Your task to perform on an android device: turn off notifications in google photos Image 0: 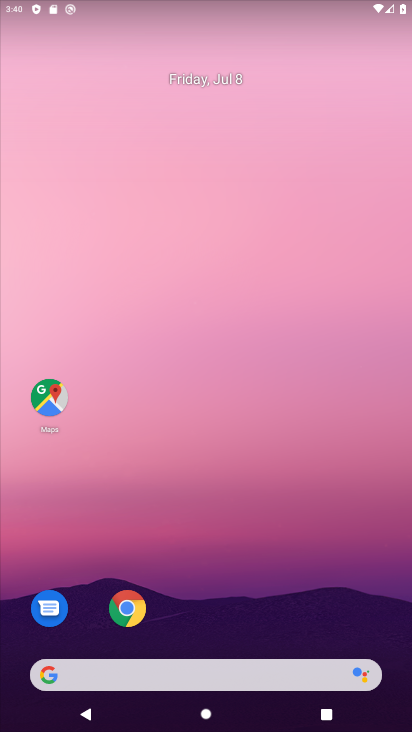
Step 0: drag from (270, 597) to (352, 34)
Your task to perform on an android device: turn off notifications in google photos Image 1: 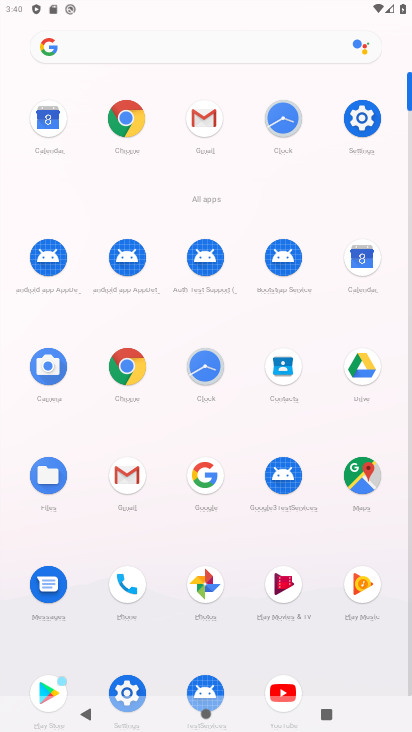
Step 1: click (202, 586)
Your task to perform on an android device: turn off notifications in google photos Image 2: 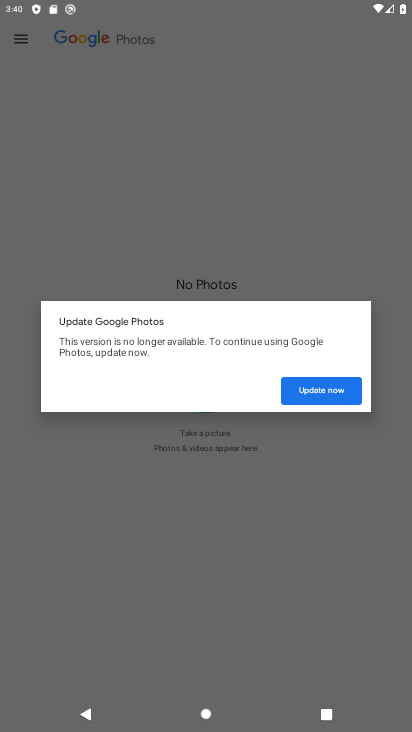
Step 2: click (325, 388)
Your task to perform on an android device: turn off notifications in google photos Image 3: 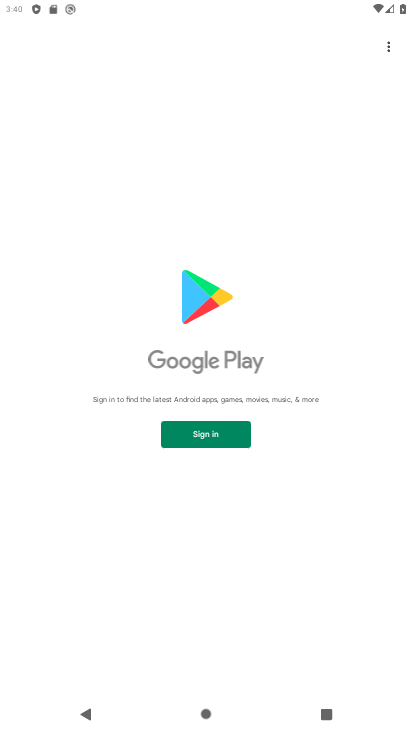
Step 3: task complete